Your task to perform on an android device: Is it going to rain tomorrow? Image 0: 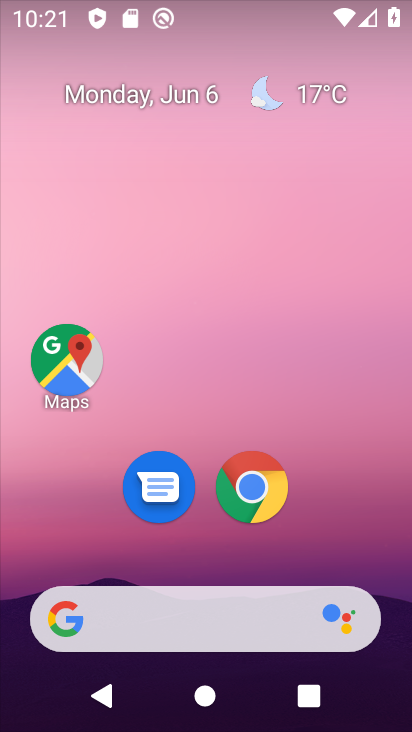
Step 0: click (183, 636)
Your task to perform on an android device: Is it going to rain tomorrow? Image 1: 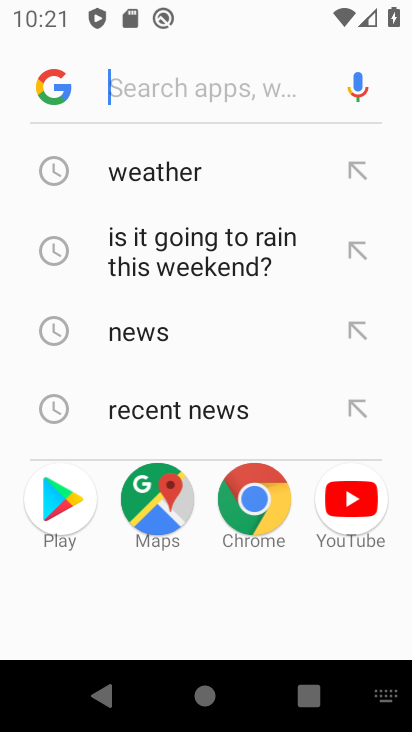
Step 1: type "weather tomorrow"
Your task to perform on an android device: Is it going to rain tomorrow? Image 2: 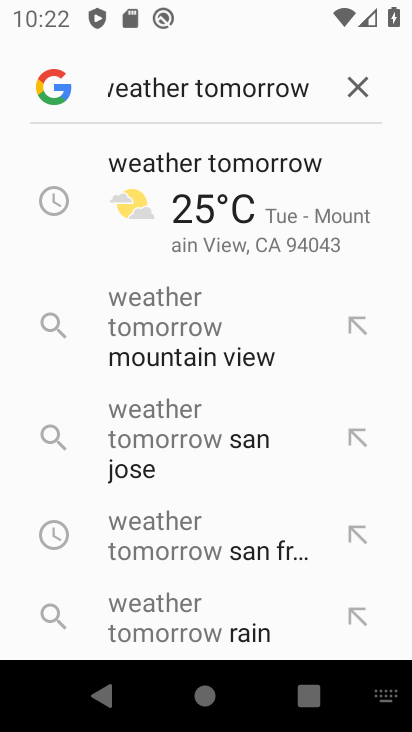
Step 2: click (184, 213)
Your task to perform on an android device: Is it going to rain tomorrow? Image 3: 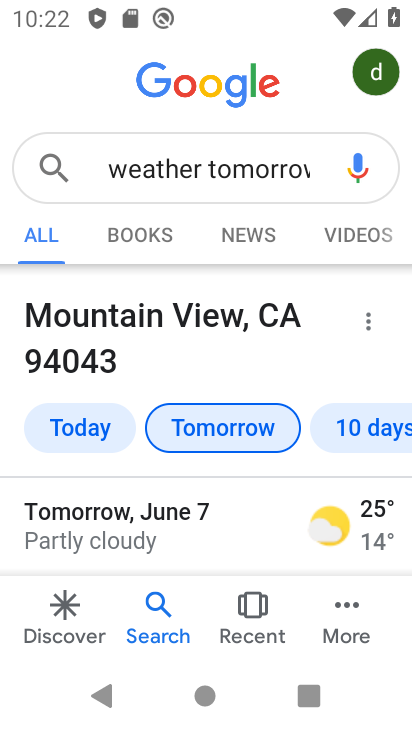
Step 3: task complete